Your task to perform on an android device: toggle notifications settings in the gmail app Image 0: 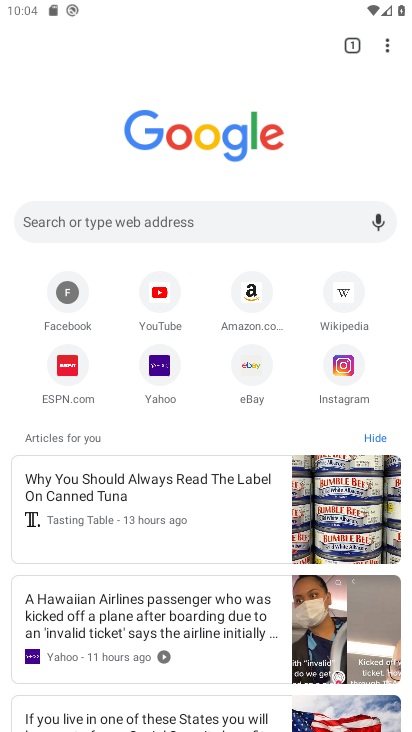
Step 0: press home button
Your task to perform on an android device: toggle notifications settings in the gmail app Image 1: 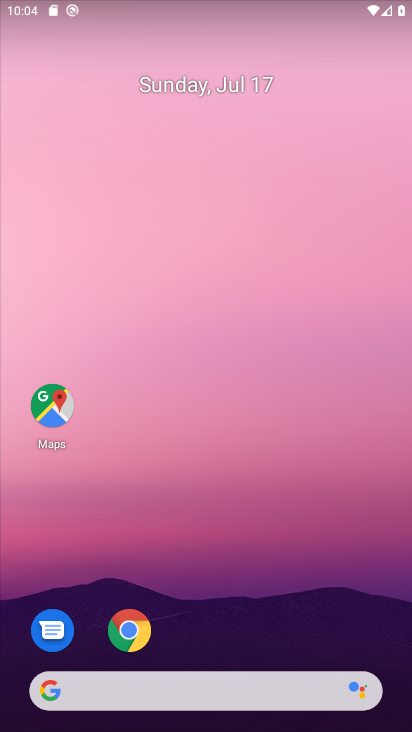
Step 1: drag from (250, 589) to (326, 34)
Your task to perform on an android device: toggle notifications settings in the gmail app Image 2: 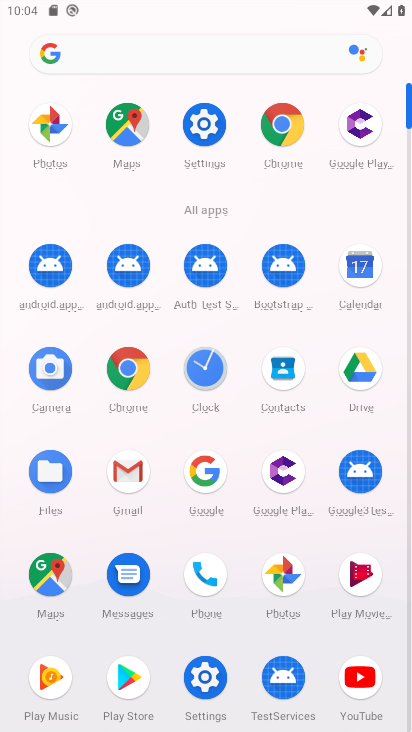
Step 2: click (134, 481)
Your task to perform on an android device: toggle notifications settings in the gmail app Image 3: 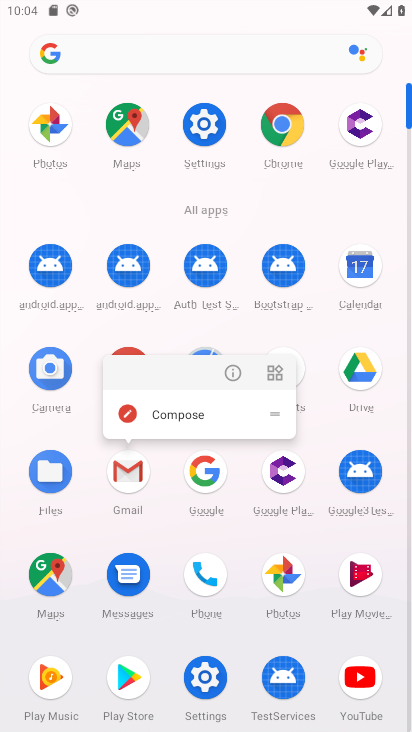
Step 3: click (131, 473)
Your task to perform on an android device: toggle notifications settings in the gmail app Image 4: 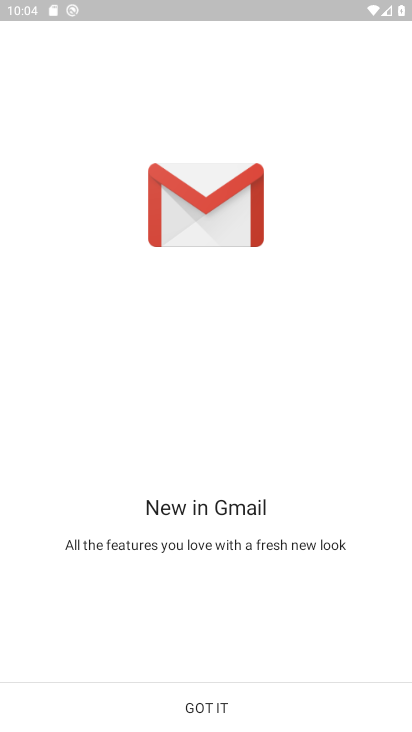
Step 4: click (224, 704)
Your task to perform on an android device: toggle notifications settings in the gmail app Image 5: 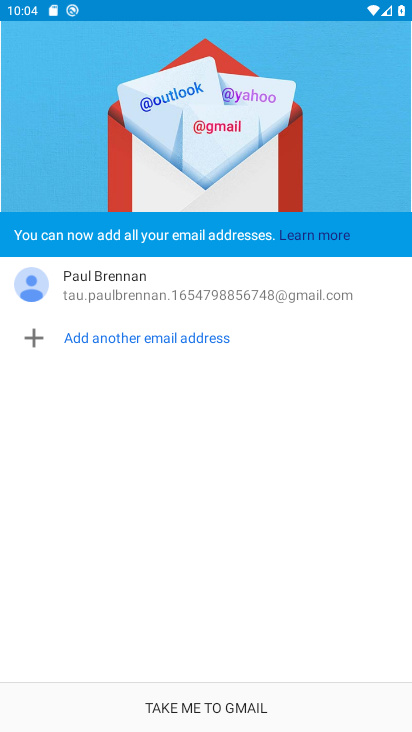
Step 5: click (224, 703)
Your task to perform on an android device: toggle notifications settings in the gmail app Image 6: 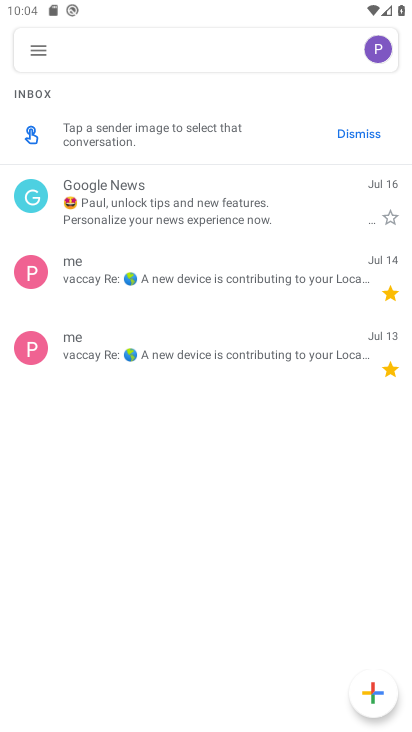
Step 6: click (41, 49)
Your task to perform on an android device: toggle notifications settings in the gmail app Image 7: 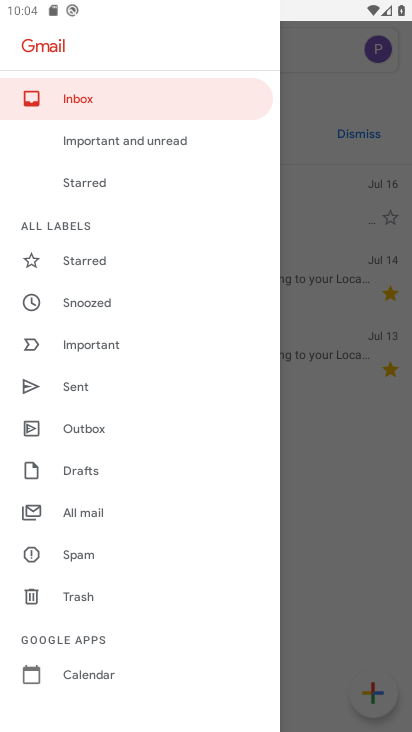
Step 7: drag from (105, 551) to (158, 343)
Your task to perform on an android device: toggle notifications settings in the gmail app Image 8: 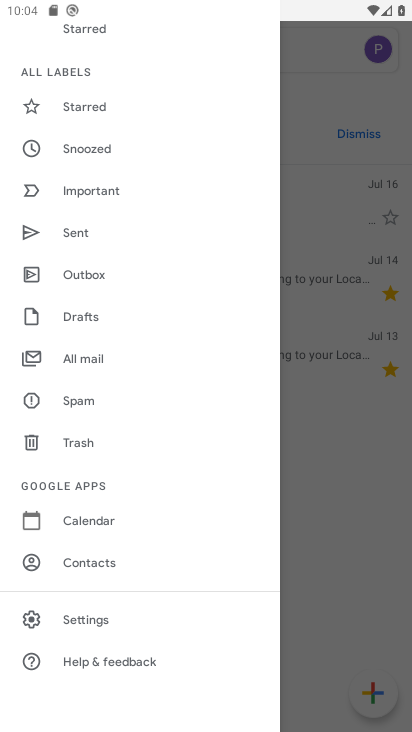
Step 8: click (95, 624)
Your task to perform on an android device: toggle notifications settings in the gmail app Image 9: 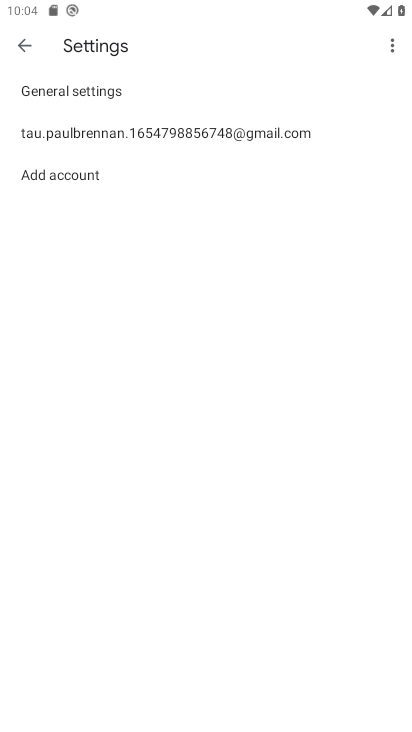
Step 9: click (192, 119)
Your task to perform on an android device: toggle notifications settings in the gmail app Image 10: 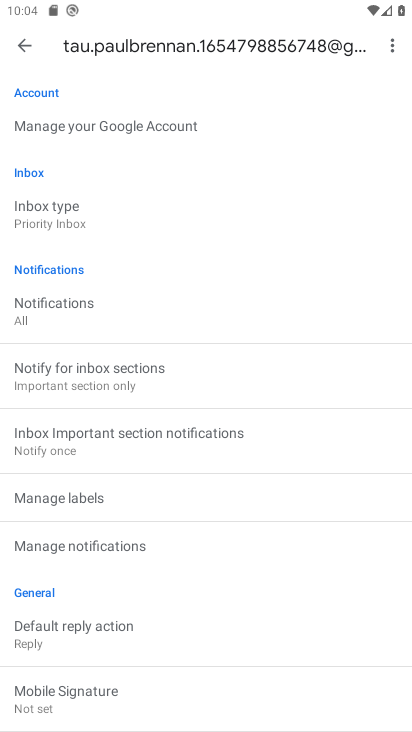
Step 10: click (156, 543)
Your task to perform on an android device: toggle notifications settings in the gmail app Image 11: 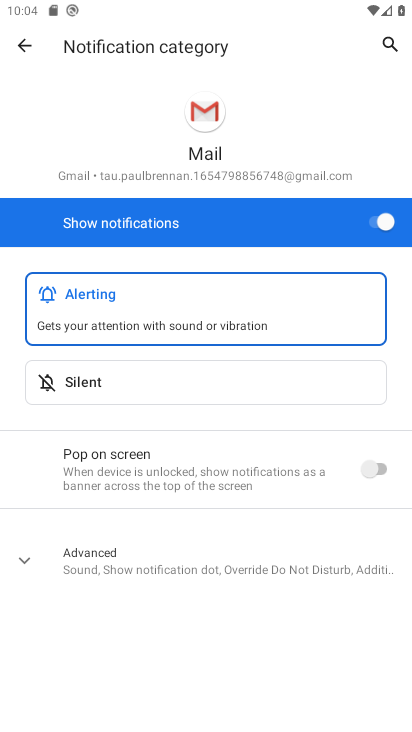
Step 11: click (381, 222)
Your task to perform on an android device: toggle notifications settings in the gmail app Image 12: 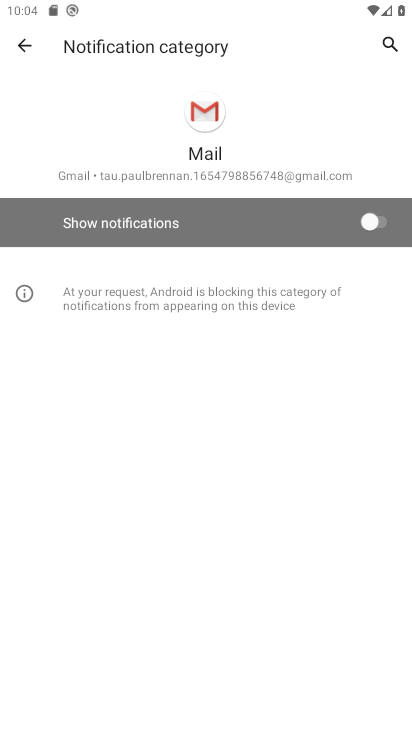
Step 12: task complete